Your task to perform on an android device: Is it going to rain tomorrow? Image 0: 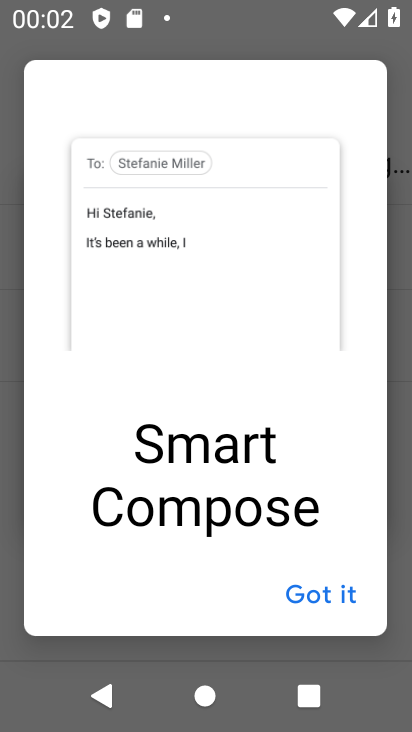
Step 0: press home button
Your task to perform on an android device: Is it going to rain tomorrow? Image 1: 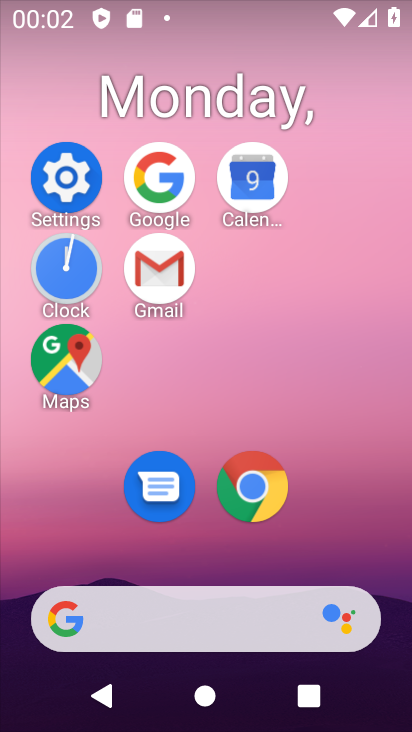
Step 1: click (146, 190)
Your task to perform on an android device: Is it going to rain tomorrow? Image 2: 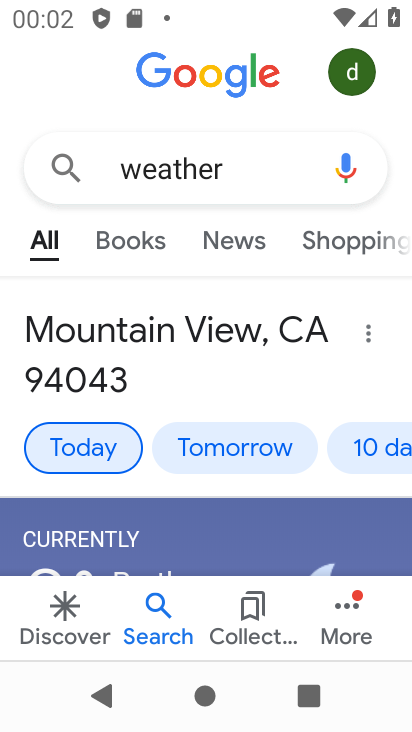
Step 2: click (218, 447)
Your task to perform on an android device: Is it going to rain tomorrow? Image 3: 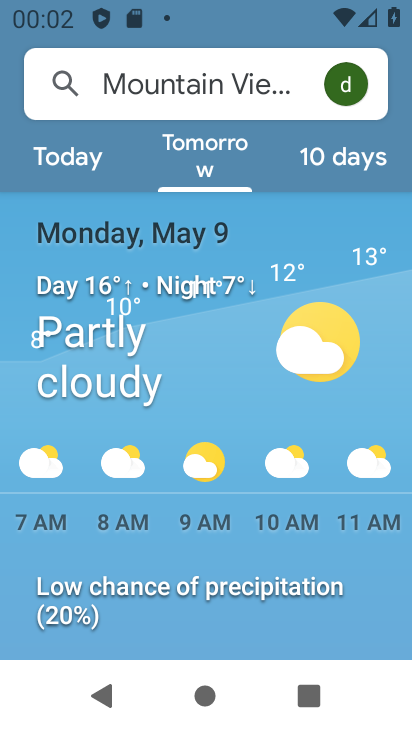
Step 3: task complete